Your task to perform on an android device: Go to Maps Image 0: 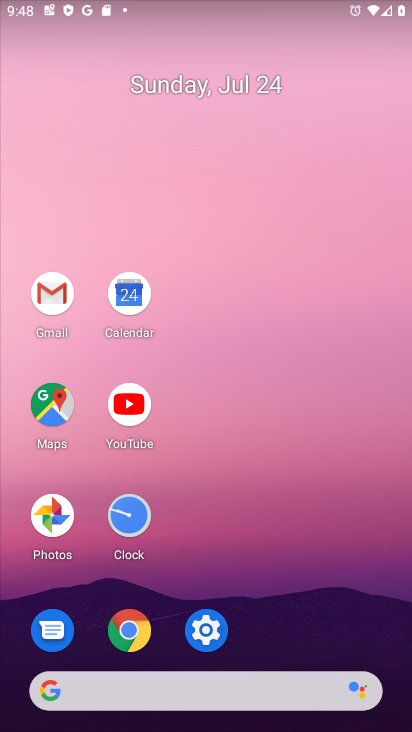
Step 0: click (50, 403)
Your task to perform on an android device: Go to Maps Image 1: 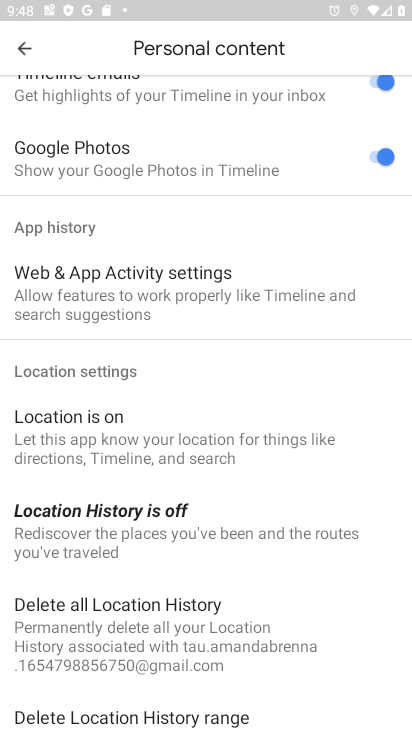
Step 1: click (22, 47)
Your task to perform on an android device: Go to Maps Image 2: 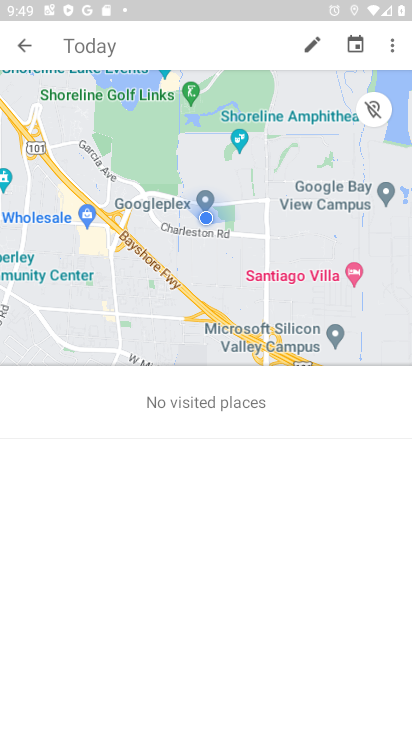
Step 2: click (28, 42)
Your task to perform on an android device: Go to Maps Image 3: 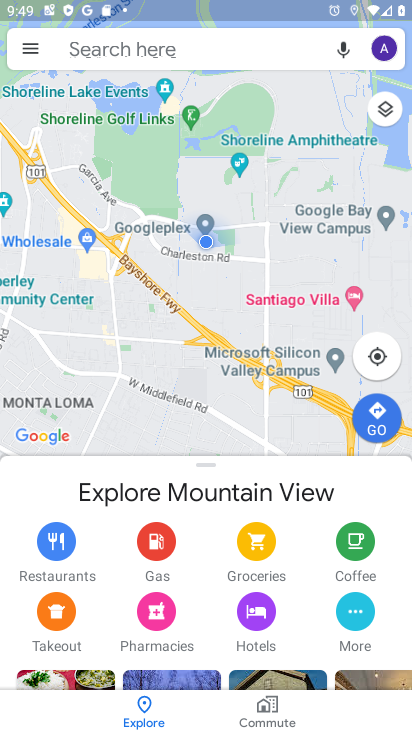
Step 3: task complete